Your task to perform on an android device: Open the phone app and click the voicemail tab. Image 0: 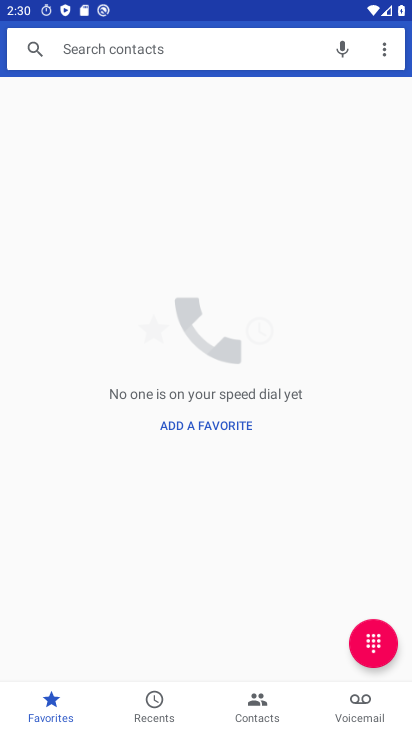
Step 0: click (360, 708)
Your task to perform on an android device: Open the phone app and click the voicemail tab. Image 1: 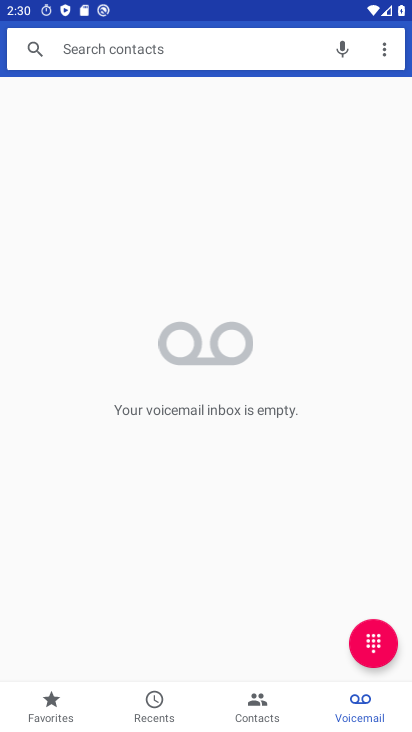
Step 1: task complete